Your task to perform on an android device: Open settings Image 0: 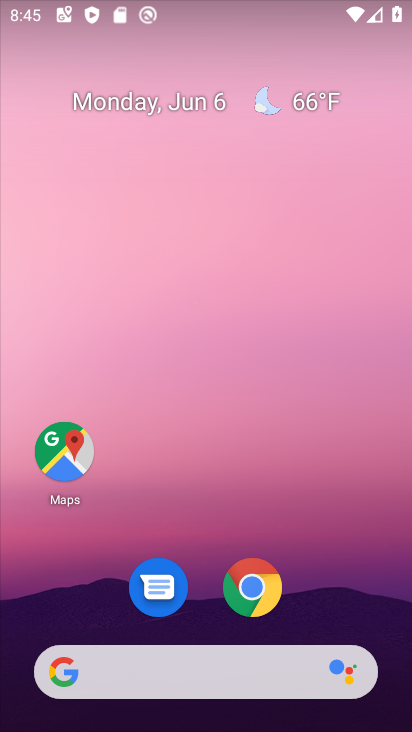
Step 0: drag from (230, 666) to (202, 127)
Your task to perform on an android device: Open settings Image 1: 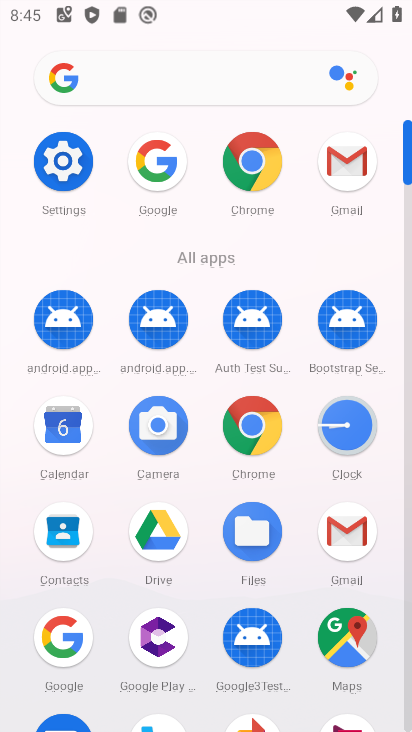
Step 1: click (32, 161)
Your task to perform on an android device: Open settings Image 2: 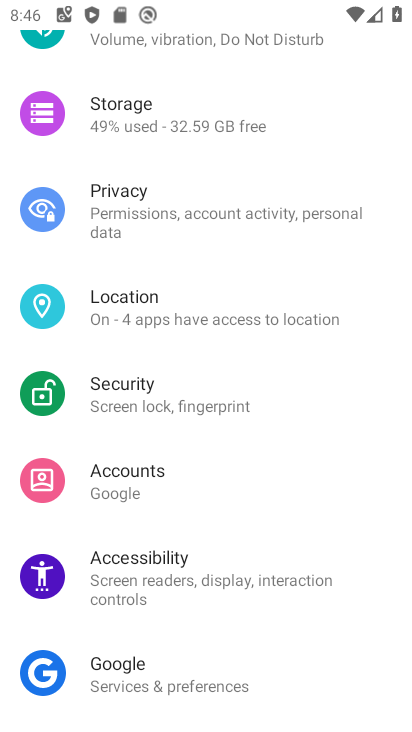
Step 2: task complete